Your task to perform on an android device: visit the assistant section in the google photos Image 0: 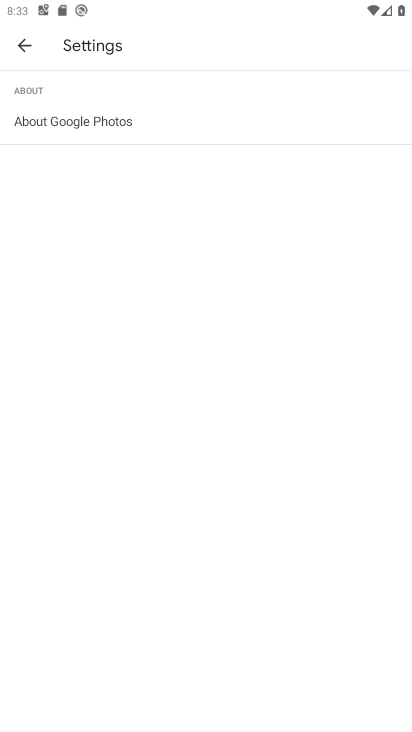
Step 0: press back button
Your task to perform on an android device: visit the assistant section in the google photos Image 1: 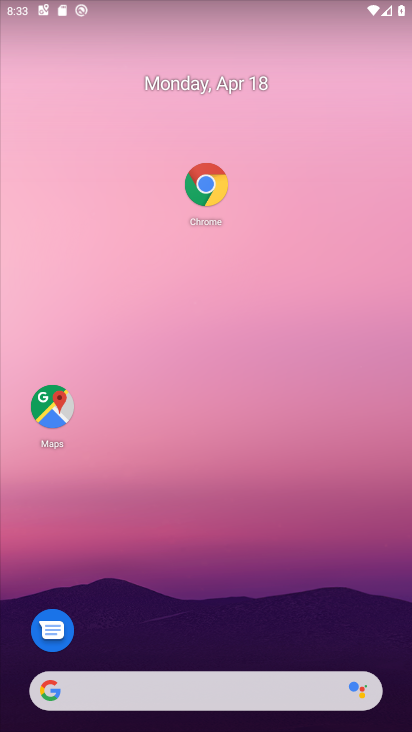
Step 1: drag from (140, 682) to (312, 245)
Your task to perform on an android device: visit the assistant section in the google photos Image 2: 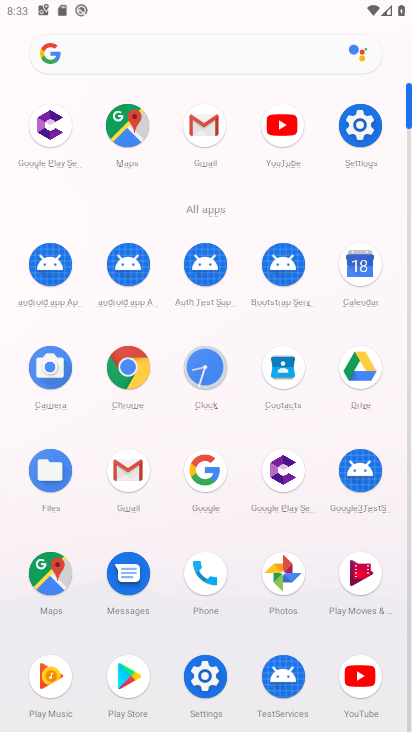
Step 2: click (275, 568)
Your task to perform on an android device: visit the assistant section in the google photos Image 3: 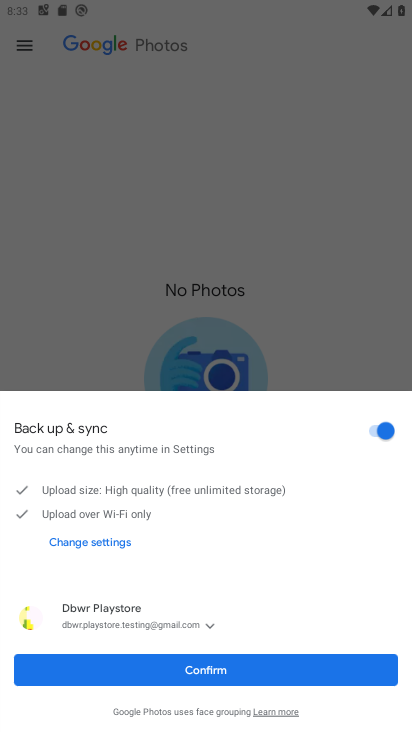
Step 3: click (241, 670)
Your task to perform on an android device: visit the assistant section in the google photos Image 4: 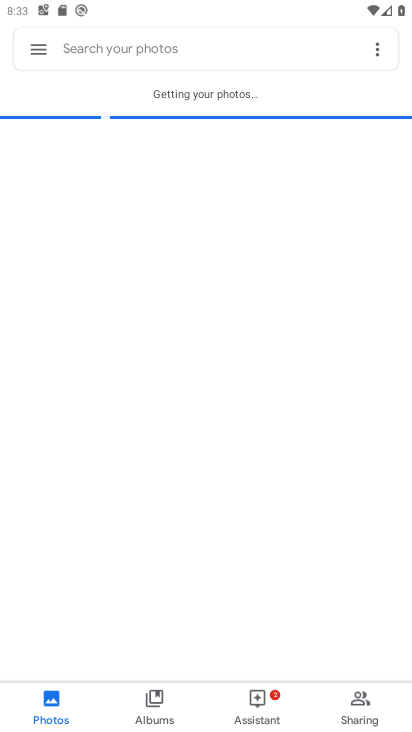
Step 4: click (280, 691)
Your task to perform on an android device: visit the assistant section in the google photos Image 5: 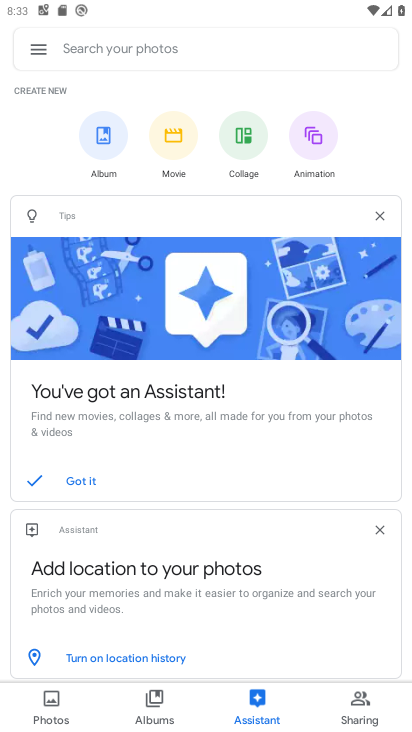
Step 5: task complete